Your task to perform on an android device: open app "WhatsApp Messenger" (install if not already installed) Image 0: 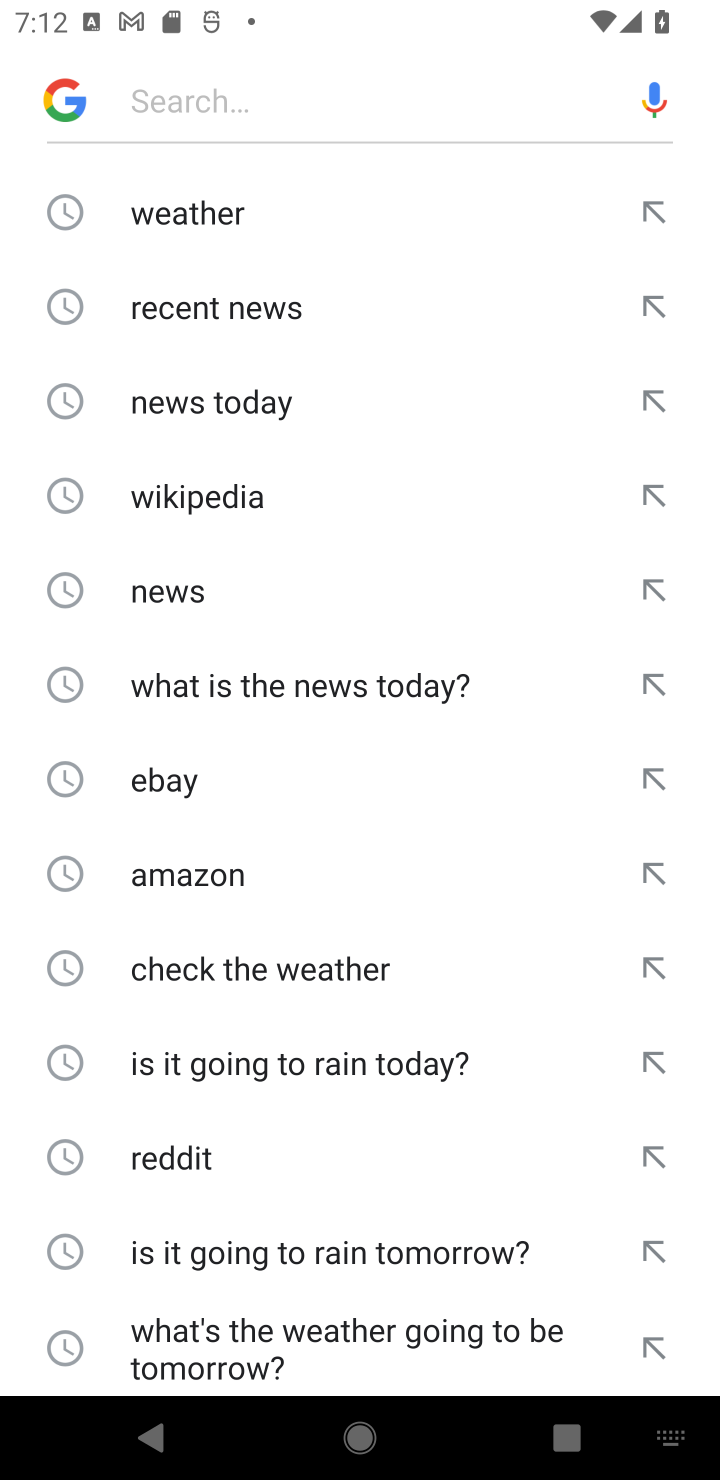
Step 0: press home button
Your task to perform on an android device: open app "WhatsApp Messenger" (install if not already installed) Image 1: 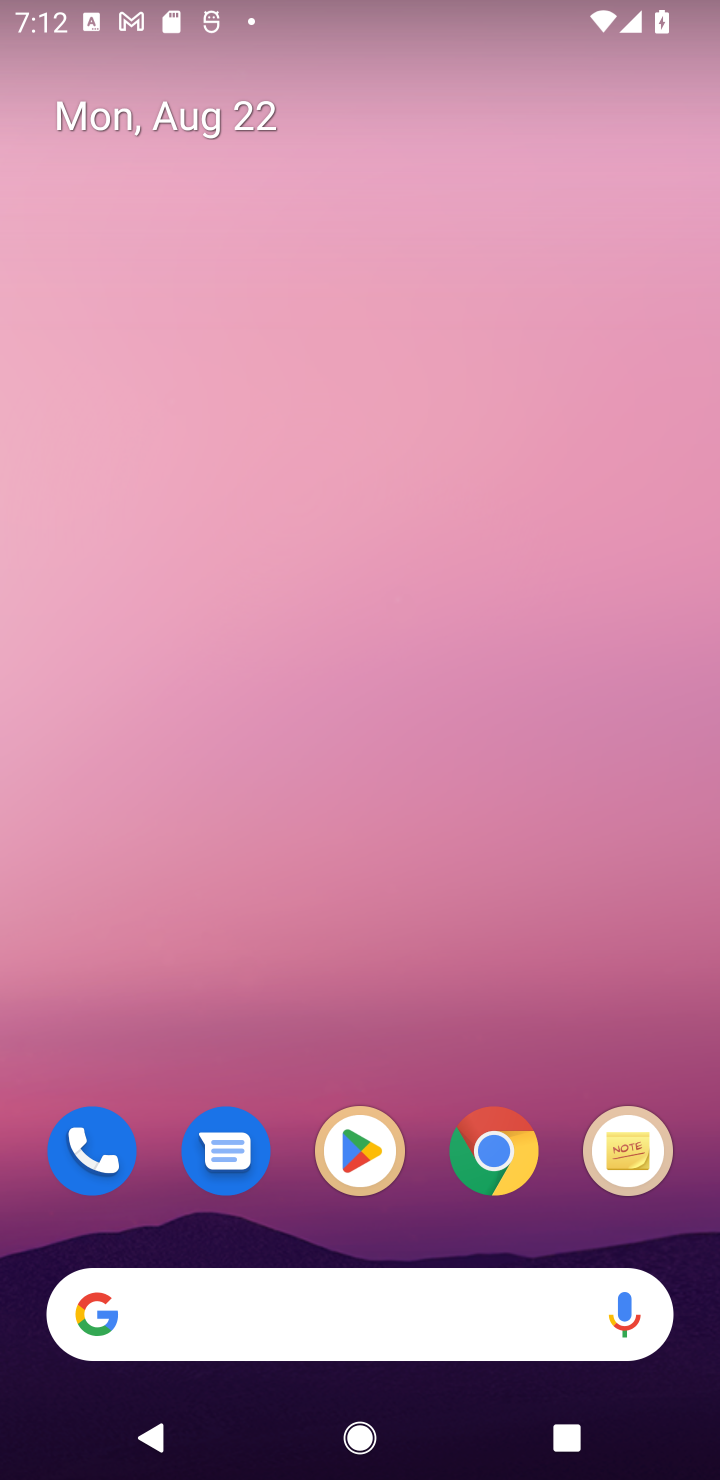
Step 1: click (333, 1160)
Your task to perform on an android device: open app "WhatsApp Messenger" (install if not already installed) Image 2: 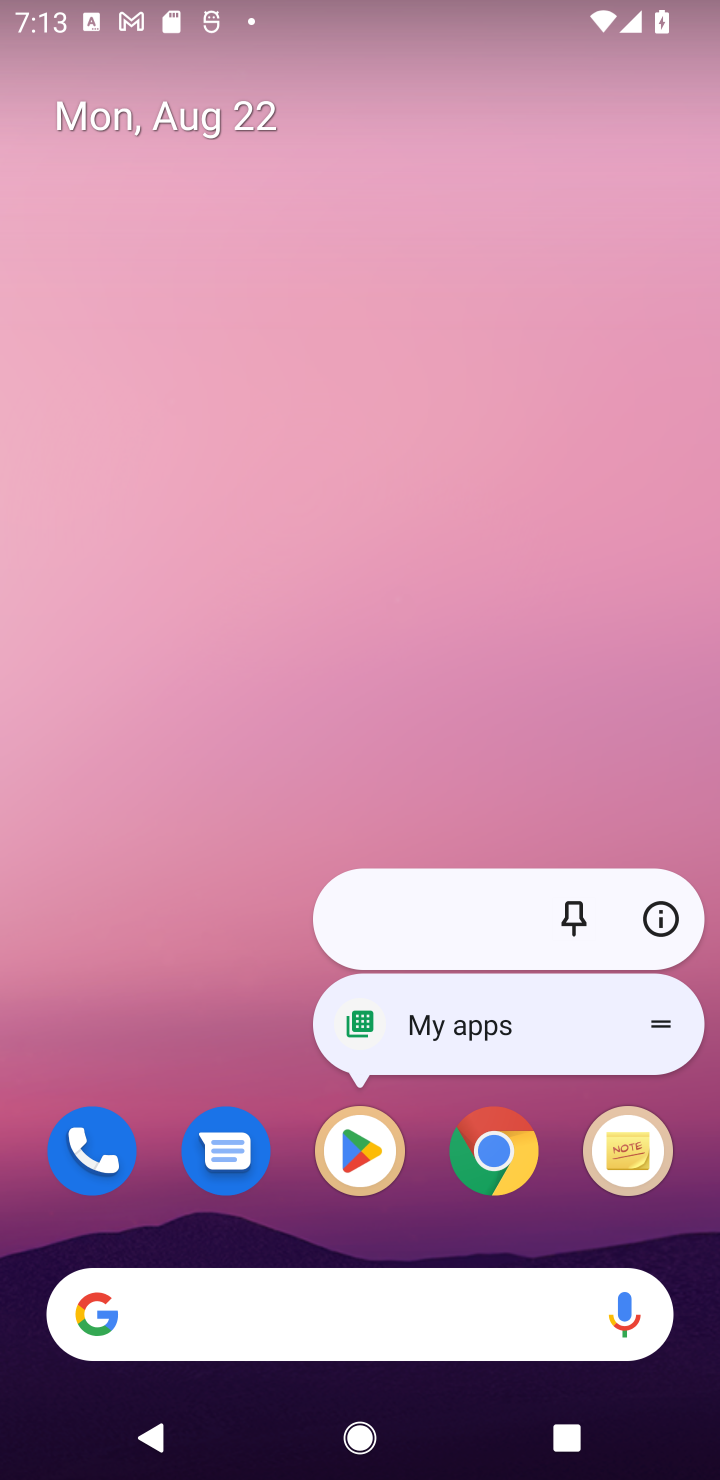
Step 2: click (335, 1169)
Your task to perform on an android device: open app "WhatsApp Messenger" (install if not already installed) Image 3: 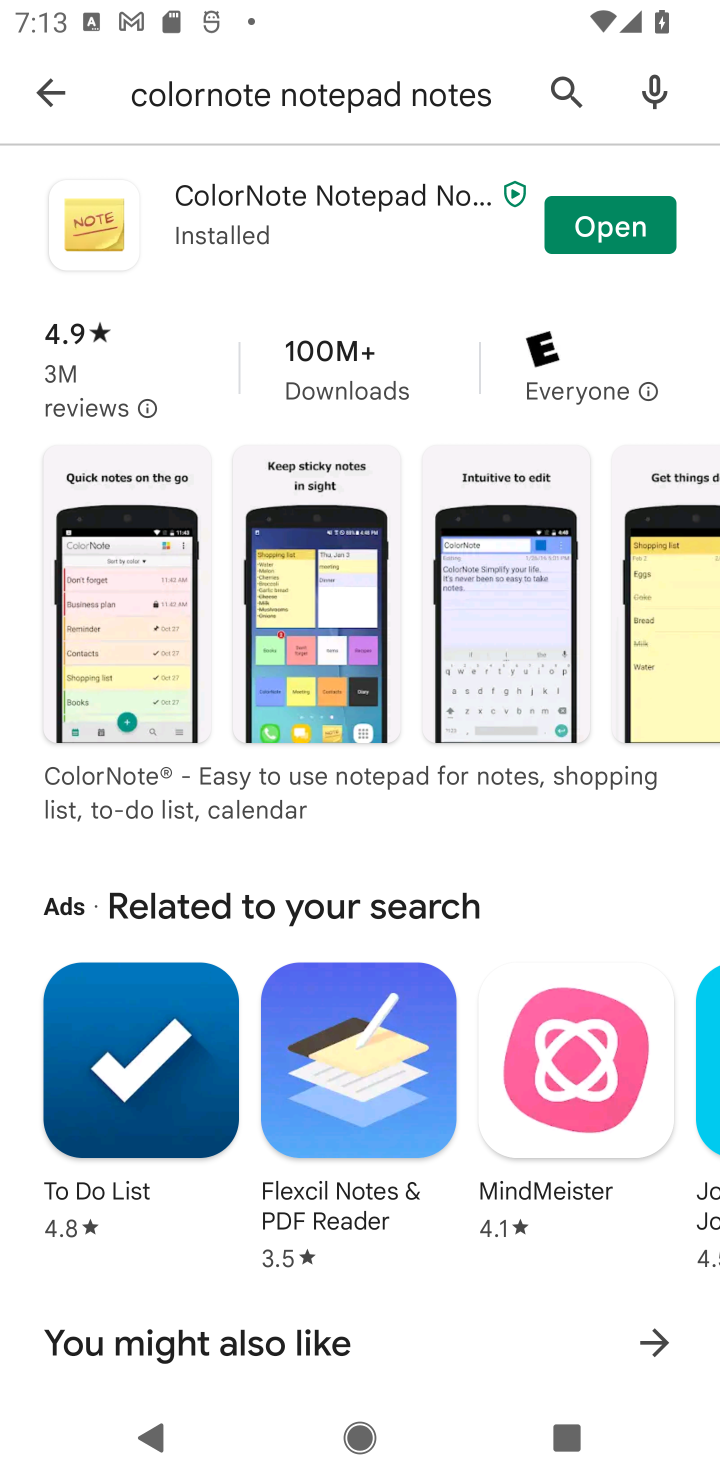
Step 3: click (562, 86)
Your task to perform on an android device: open app "WhatsApp Messenger" (install if not already installed) Image 4: 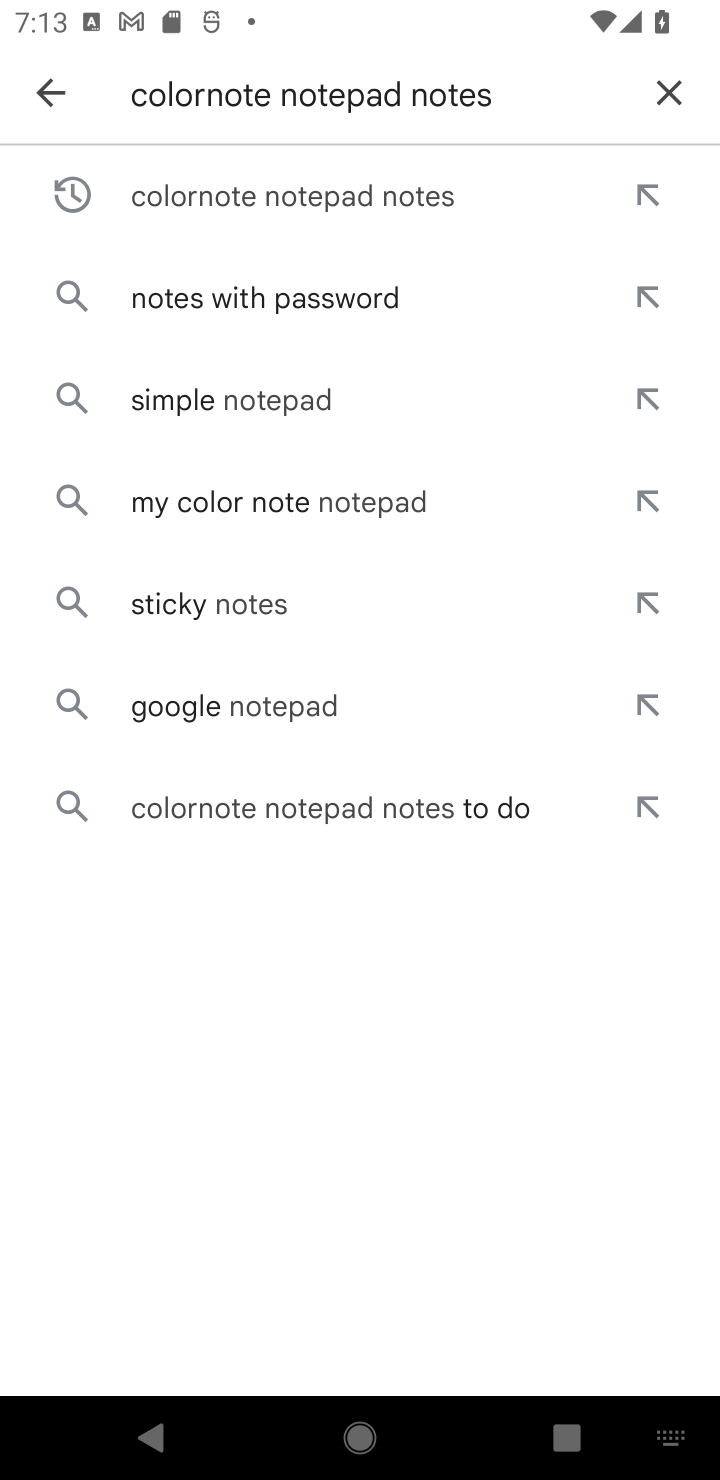
Step 4: click (664, 76)
Your task to perform on an android device: open app "WhatsApp Messenger" (install if not already installed) Image 5: 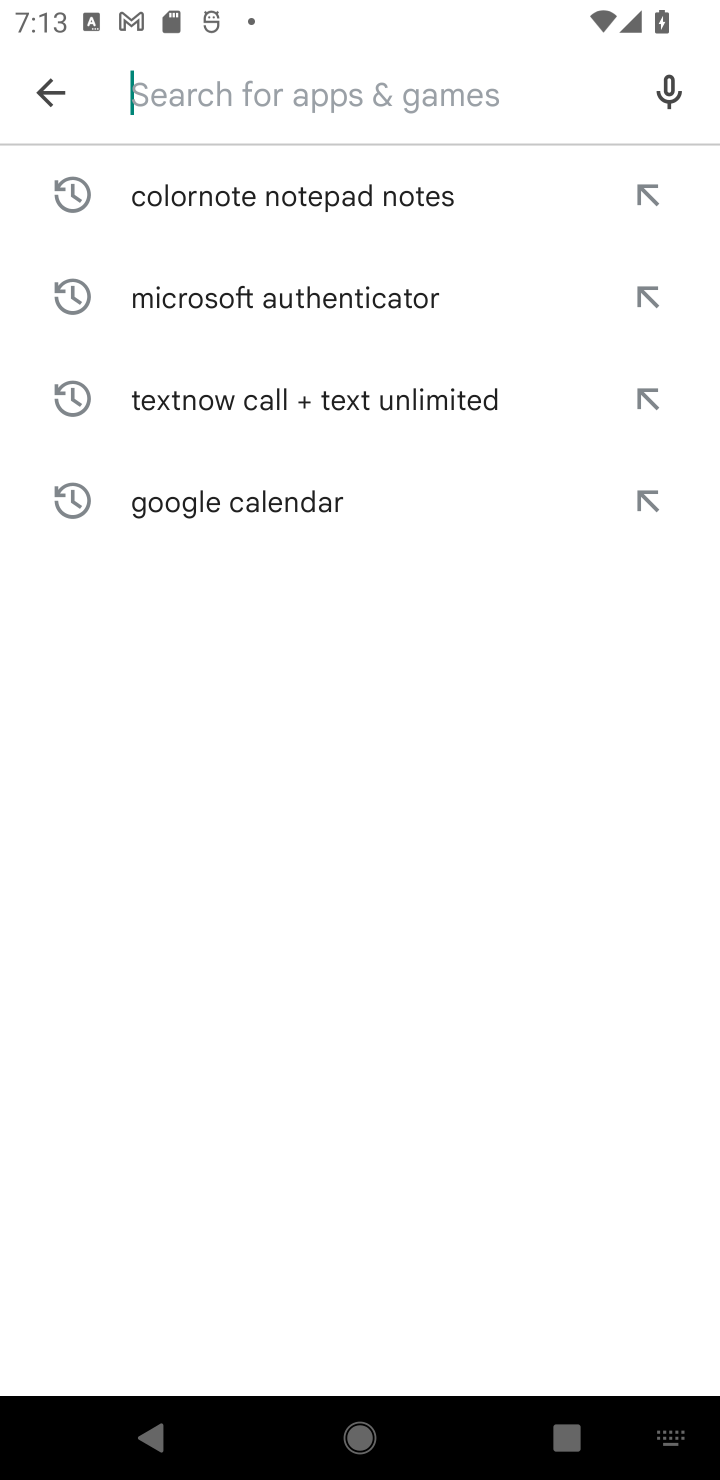
Step 5: type "WhatsApp Messenger"
Your task to perform on an android device: open app "WhatsApp Messenger" (install if not already installed) Image 6: 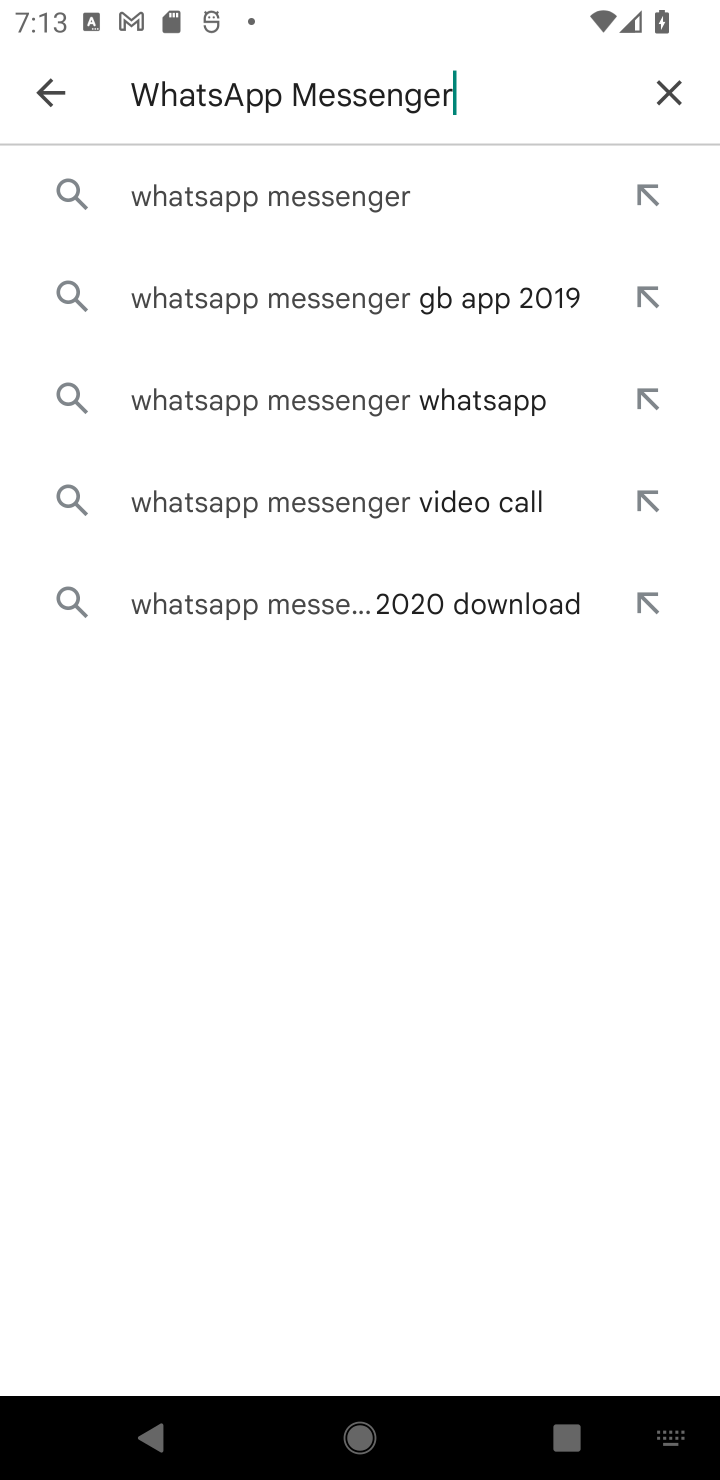
Step 6: click (345, 203)
Your task to perform on an android device: open app "WhatsApp Messenger" (install if not already installed) Image 7: 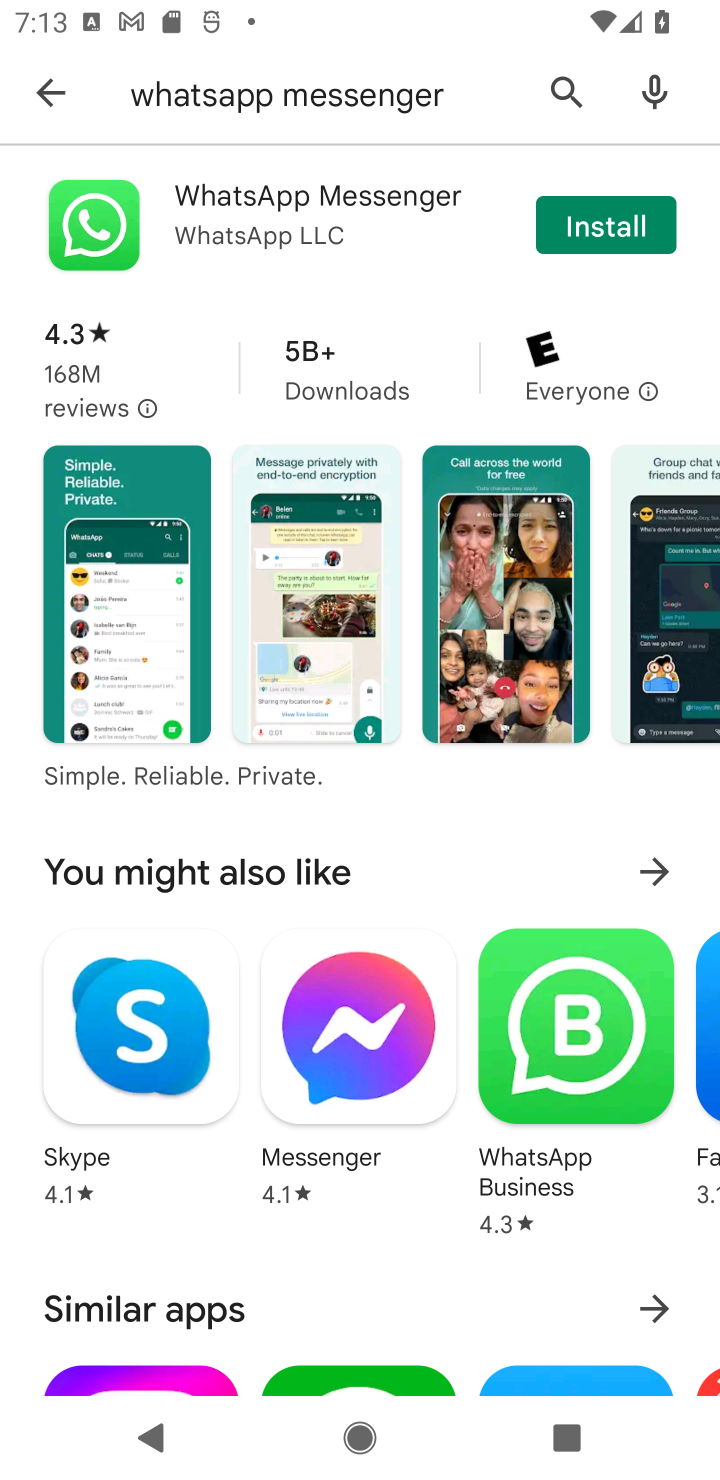
Step 7: click (600, 229)
Your task to perform on an android device: open app "WhatsApp Messenger" (install if not already installed) Image 8: 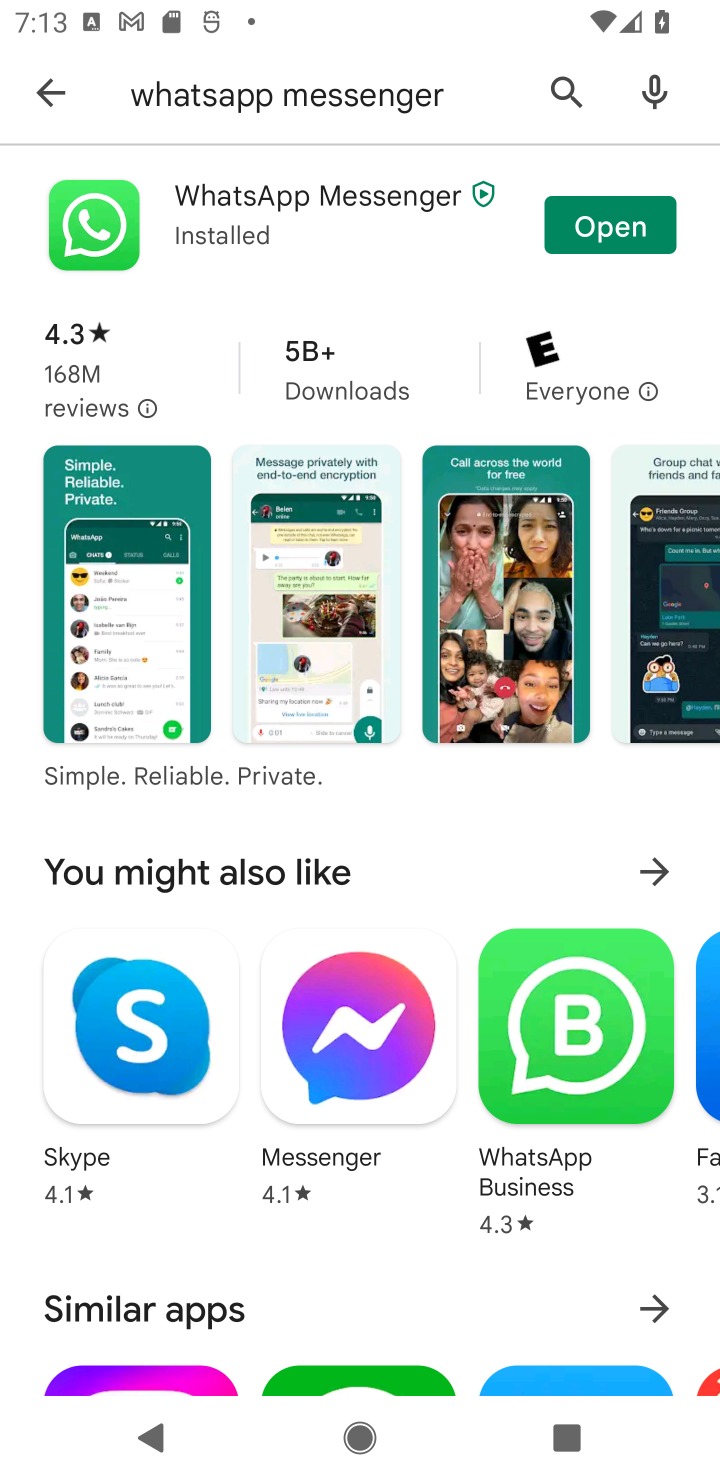
Step 8: click (620, 219)
Your task to perform on an android device: open app "WhatsApp Messenger" (install if not already installed) Image 9: 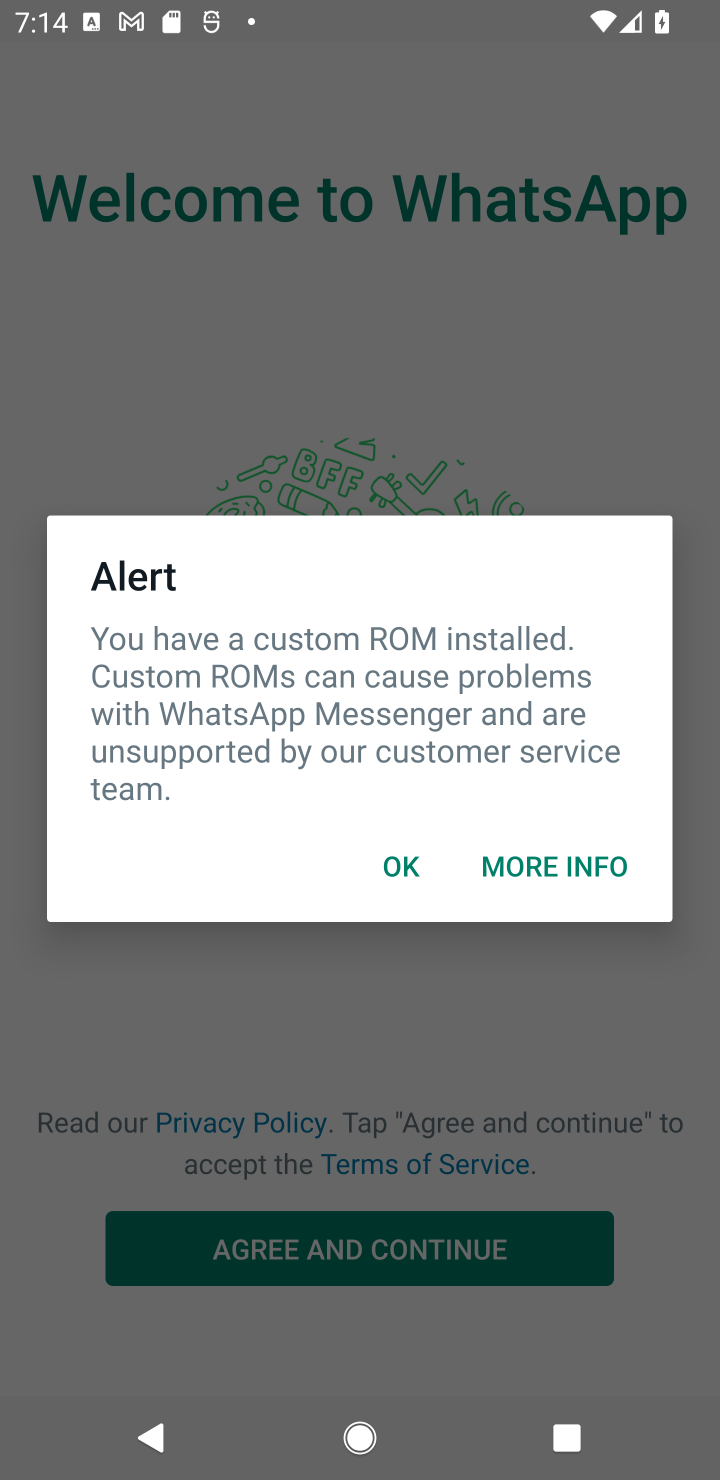
Step 9: task complete